Your task to perform on an android device: Is it going to rain tomorrow? Image 0: 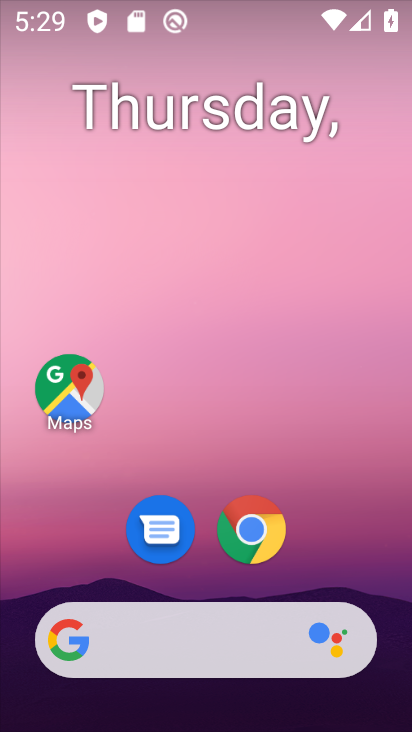
Step 0: drag from (316, 524) to (254, 58)
Your task to perform on an android device: Is it going to rain tomorrow? Image 1: 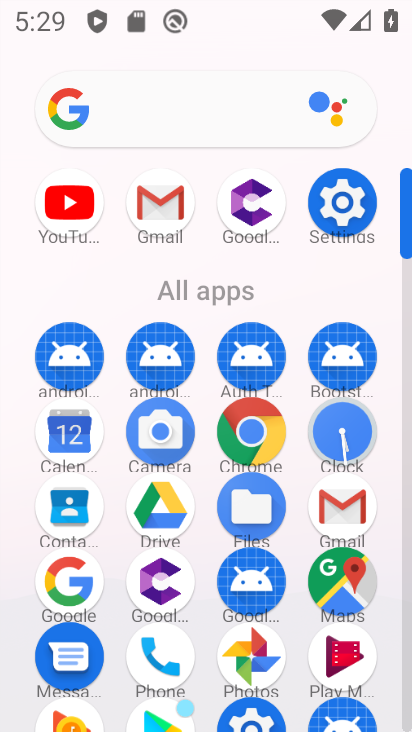
Step 1: click (68, 581)
Your task to perform on an android device: Is it going to rain tomorrow? Image 2: 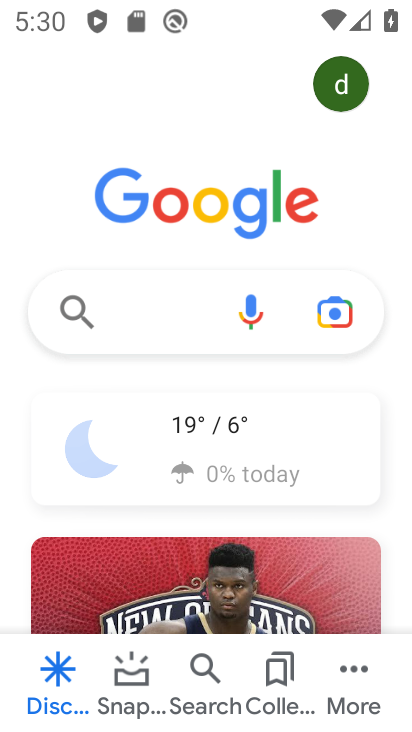
Step 2: click (144, 326)
Your task to perform on an android device: Is it going to rain tomorrow? Image 3: 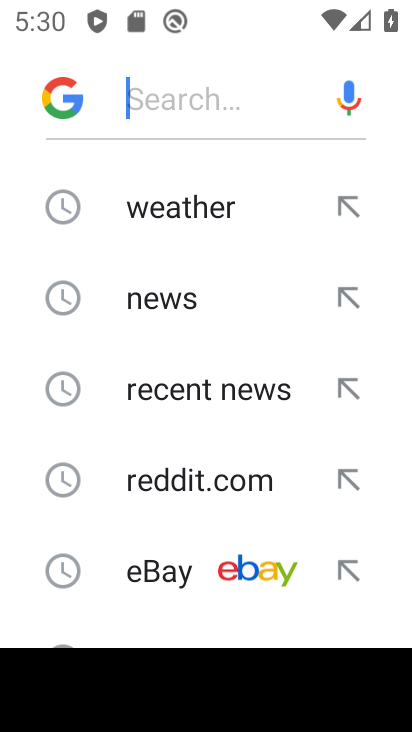
Step 3: type "Is it going to rain tomorrow?"
Your task to perform on an android device: Is it going to rain tomorrow? Image 4: 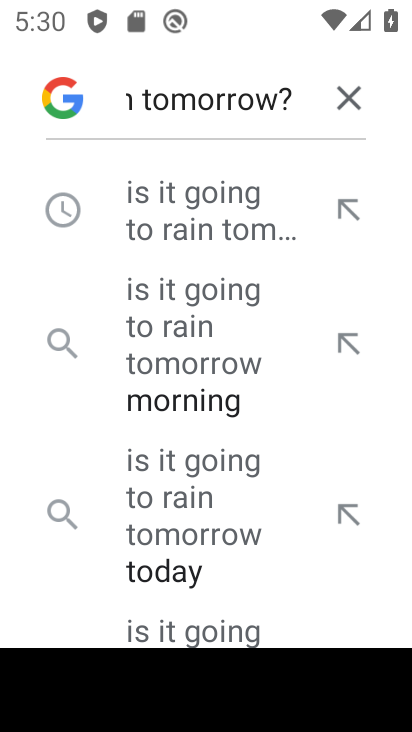
Step 4: click (201, 226)
Your task to perform on an android device: Is it going to rain tomorrow? Image 5: 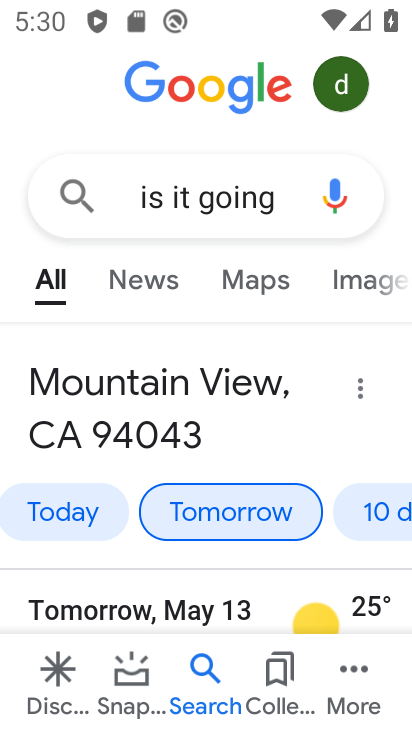
Step 5: task complete